Your task to perform on an android device: turn off translation in the chrome app Image 0: 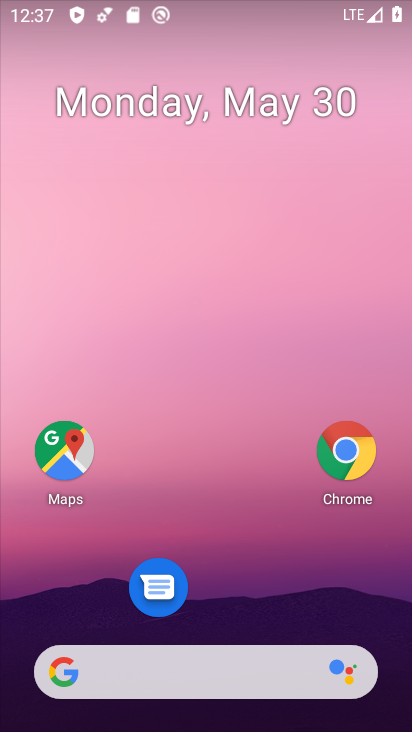
Step 0: click (352, 455)
Your task to perform on an android device: turn off translation in the chrome app Image 1: 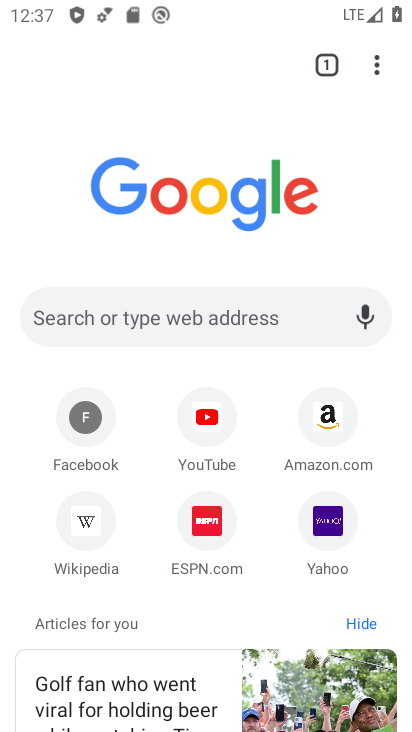
Step 1: click (364, 64)
Your task to perform on an android device: turn off translation in the chrome app Image 2: 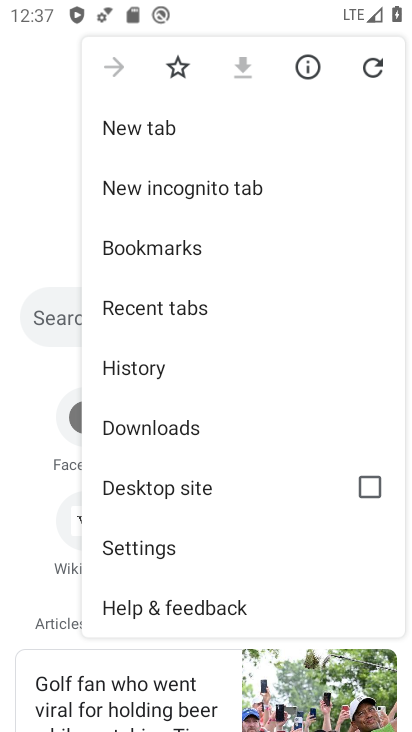
Step 2: click (182, 548)
Your task to perform on an android device: turn off translation in the chrome app Image 3: 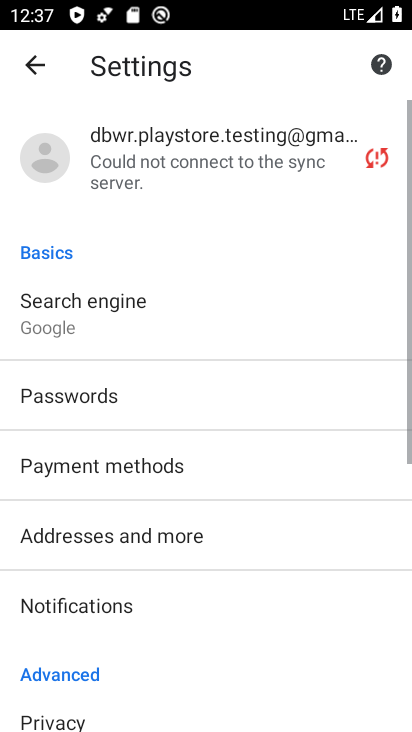
Step 3: drag from (239, 622) to (309, 138)
Your task to perform on an android device: turn off translation in the chrome app Image 4: 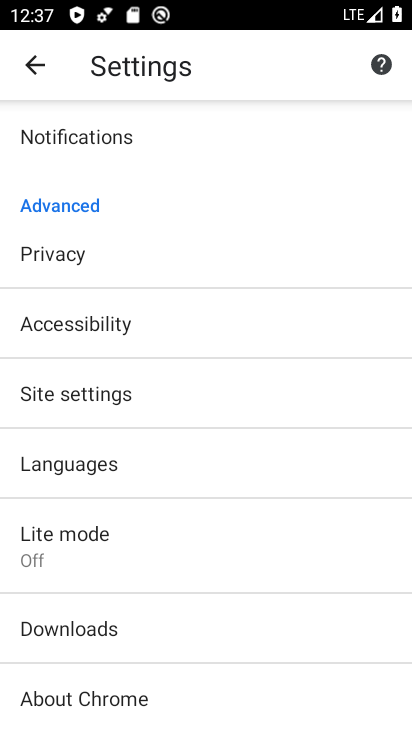
Step 4: click (71, 463)
Your task to perform on an android device: turn off translation in the chrome app Image 5: 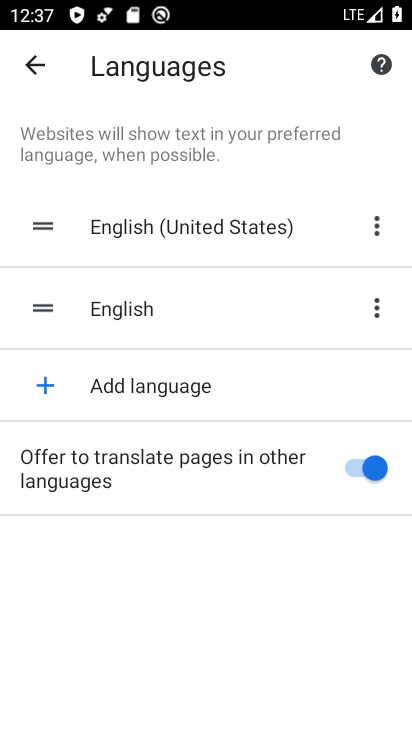
Step 5: click (369, 471)
Your task to perform on an android device: turn off translation in the chrome app Image 6: 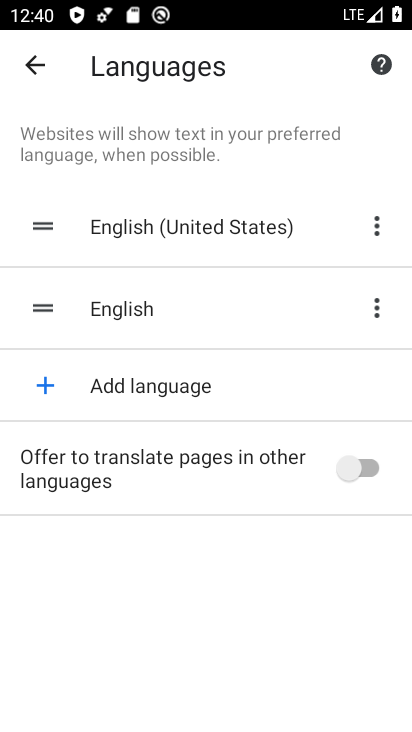
Step 6: task complete